Your task to perform on an android device: stop showing notifications on the lock screen Image 0: 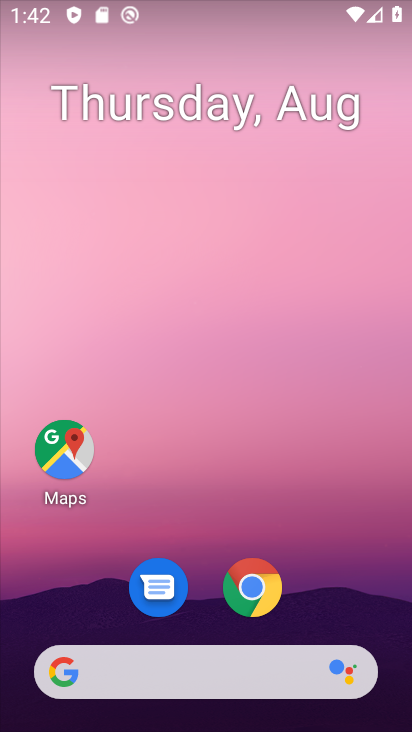
Step 0: drag from (203, 508) to (165, 104)
Your task to perform on an android device: stop showing notifications on the lock screen Image 1: 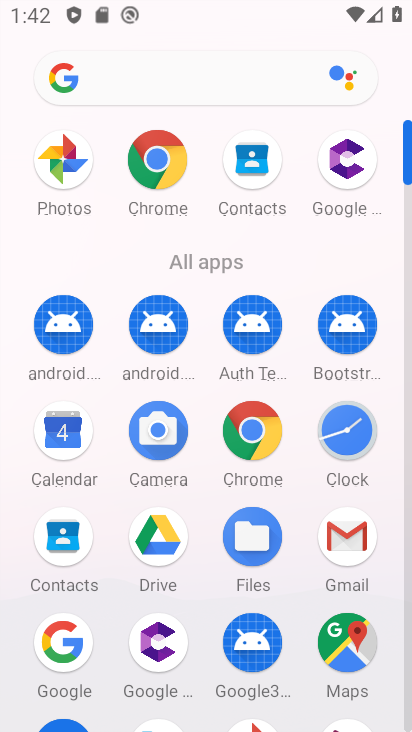
Step 1: drag from (198, 603) to (198, 332)
Your task to perform on an android device: stop showing notifications on the lock screen Image 2: 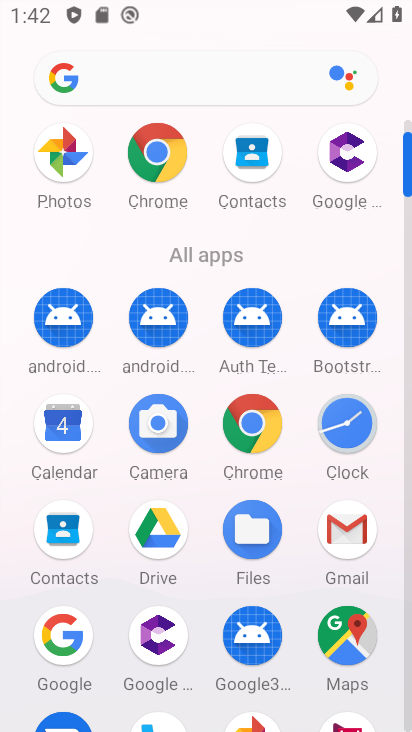
Step 2: drag from (200, 578) to (200, 266)
Your task to perform on an android device: stop showing notifications on the lock screen Image 3: 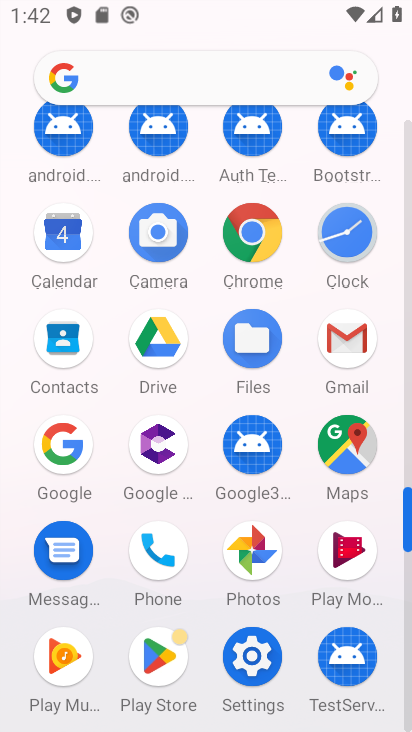
Step 3: click (254, 658)
Your task to perform on an android device: stop showing notifications on the lock screen Image 4: 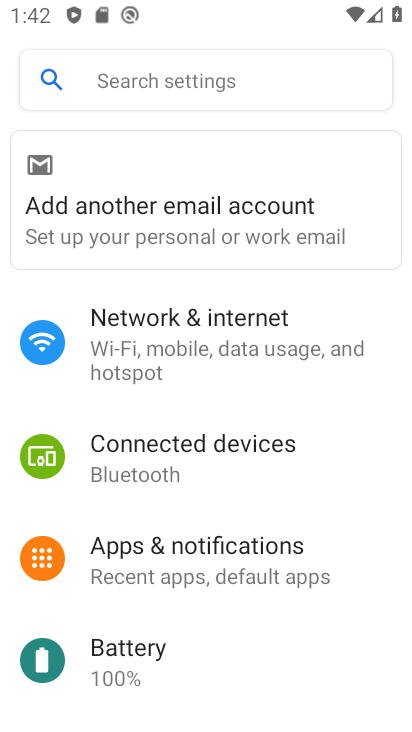
Step 4: click (195, 552)
Your task to perform on an android device: stop showing notifications on the lock screen Image 5: 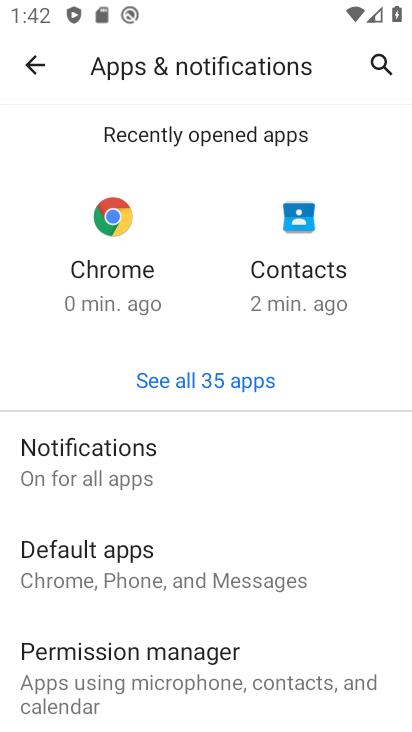
Step 5: drag from (224, 523) to (188, 181)
Your task to perform on an android device: stop showing notifications on the lock screen Image 6: 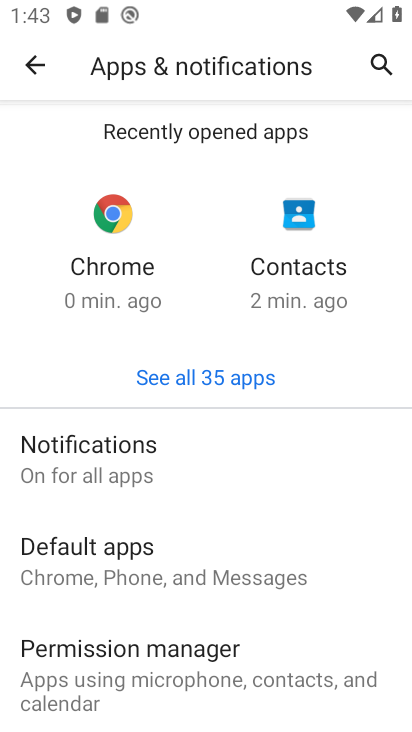
Step 6: drag from (216, 606) to (189, 209)
Your task to perform on an android device: stop showing notifications on the lock screen Image 7: 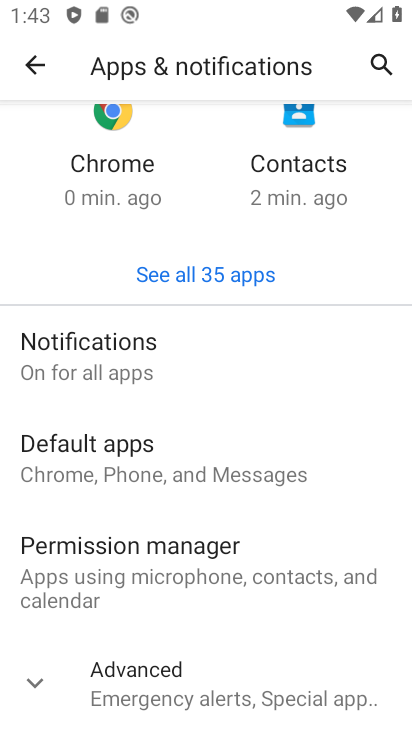
Step 7: click (108, 343)
Your task to perform on an android device: stop showing notifications on the lock screen Image 8: 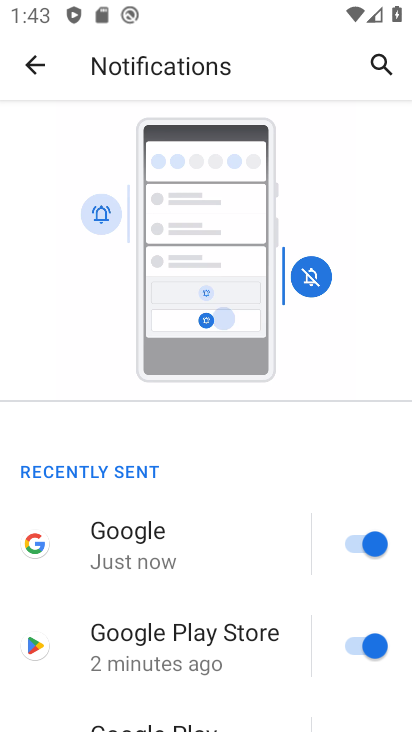
Step 8: drag from (230, 553) to (206, 176)
Your task to perform on an android device: stop showing notifications on the lock screen Image 9: 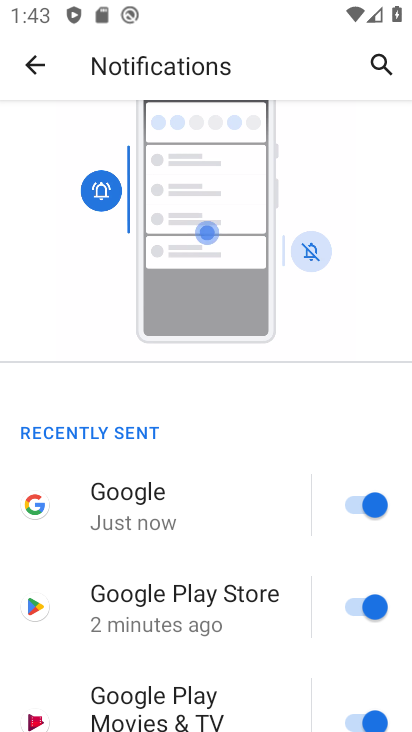
Step 9: drag from (264, 664) to (266, 274)
Your task to perform on an android device: stop showing notifications on the lock screen Image 10: 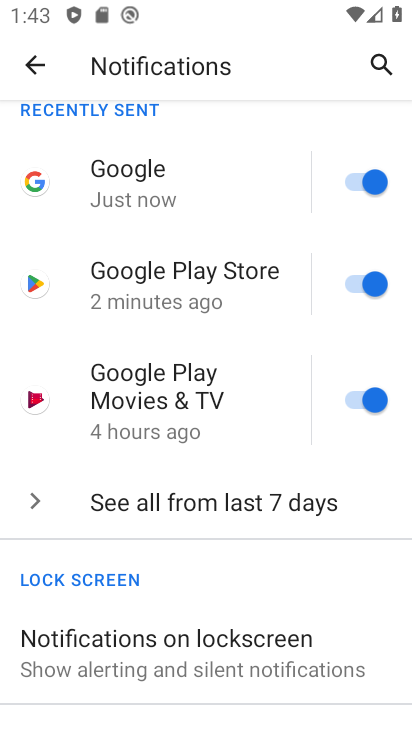
Step 10: click (172, 647)
Your task to perform on an android device: stop showing notifications on the lock screen Image 11: 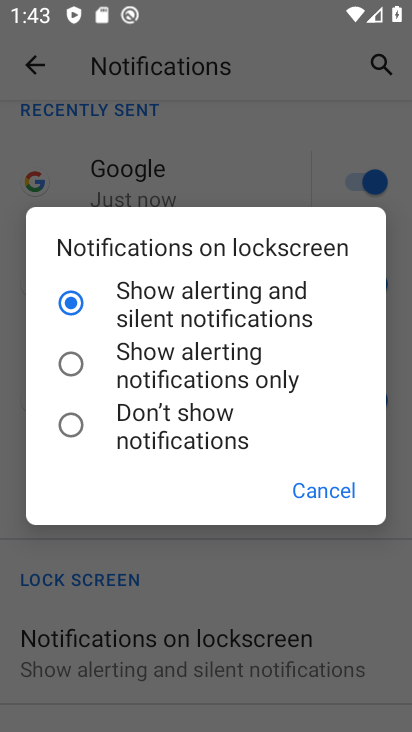
Step 11: click (69, 428)
Your task to perform on an android device: stop showing notifications on the lock screen Image 12: 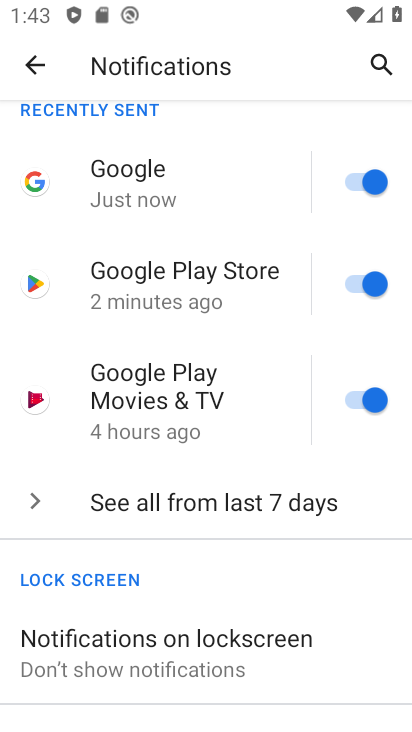
Step 12: task complete